Your task to perform on an android device: Is it going to rain this weekend? Image 0: 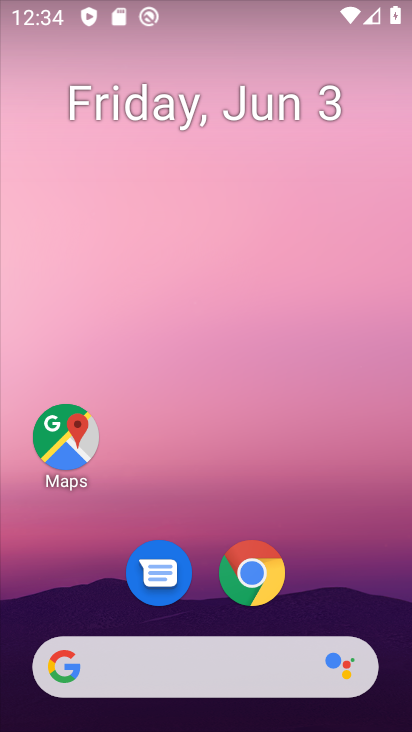
Step 0: task complete